Your task to perform on an android device: Go to accessibility settings Image 0: 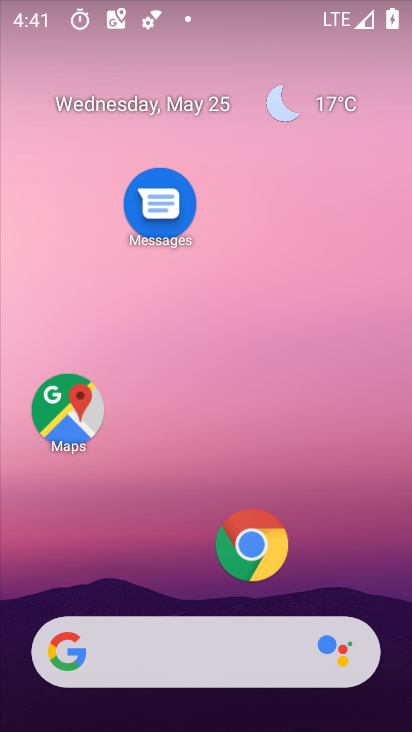
Step 0: drag from (339, 548) to (320, 69)
Your task to perform on an android device: Go to accessibility settings Image 1: 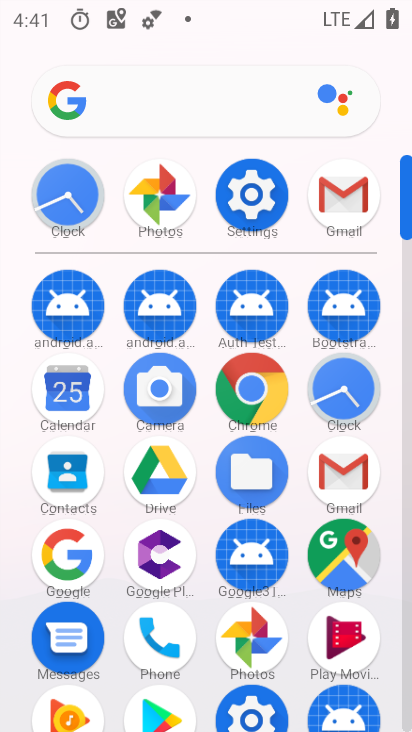
Step 1: click (258, 182)
Your task to perform on an android device: Go to accessibility settings Image 2: 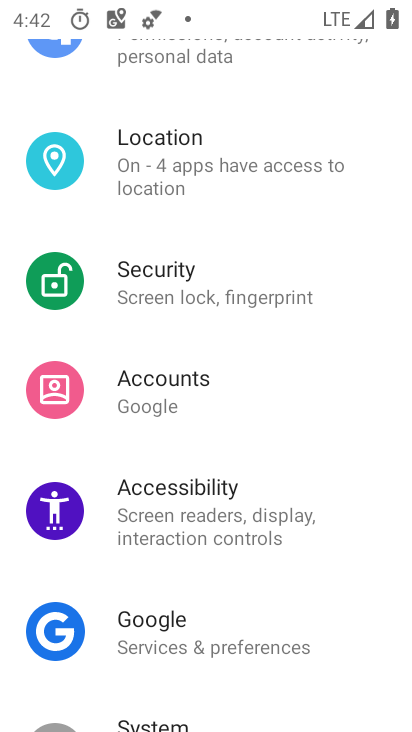
Step 2: click (204, 531)
Your task to perform on an android device: Go to accessibility settings Image 3: 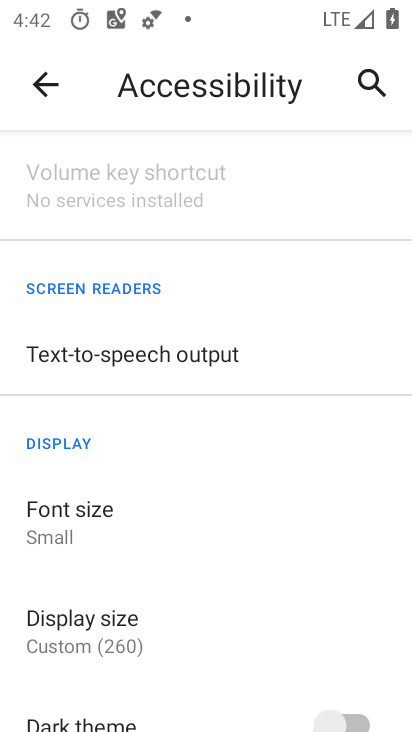
Step 3: task complete